Your task to perform on an android device: toggle notification dots Image 0: 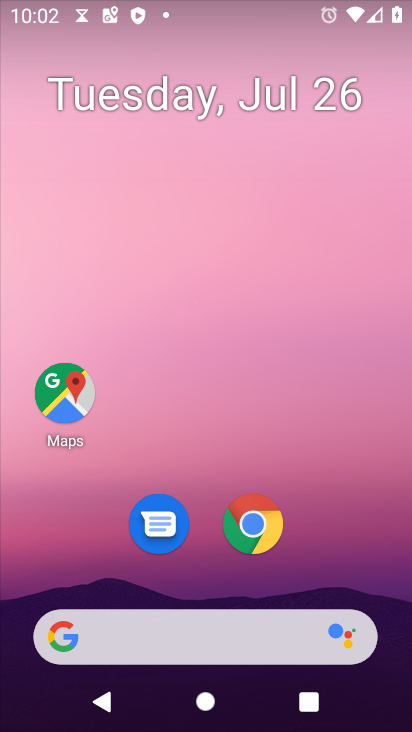
Step 0: drag from (243, 607) to (408, 139)
Your task to perform on an android device: toggle notification dots Image 1: 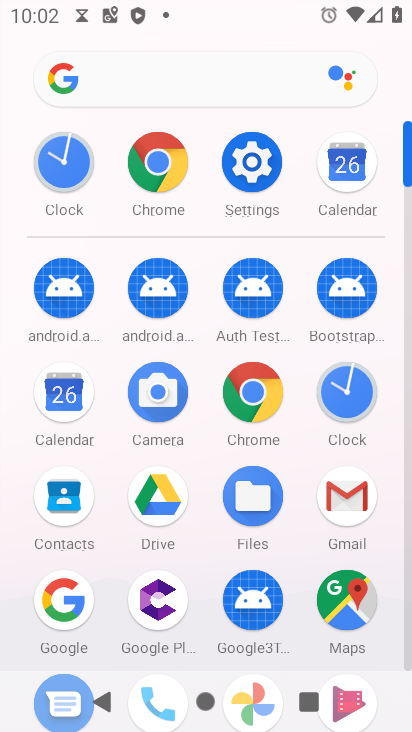
Step 1: click (252, 165)
Your task to perform on an android device: toggle notification dots Image 2: 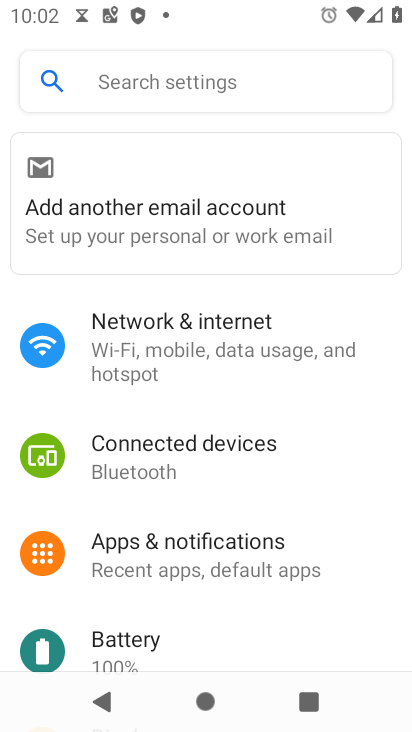
Step 2: click (217, 551)
Your task to perform on an android device: toggle notification dots Image 3: 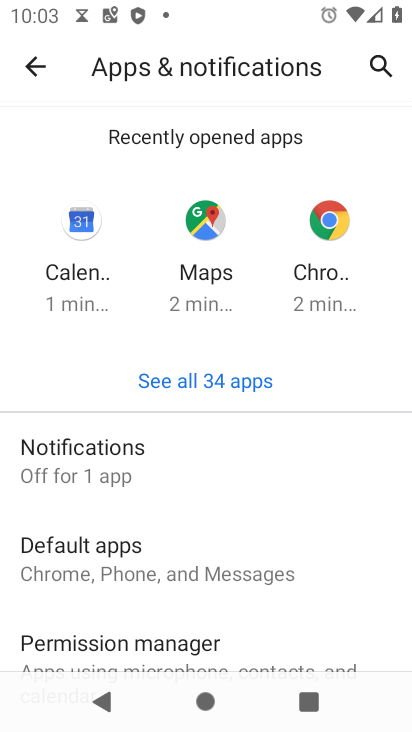
Step 3: click (119, 461)
Your task to perform on an android device: toggle notification dots Image 4: 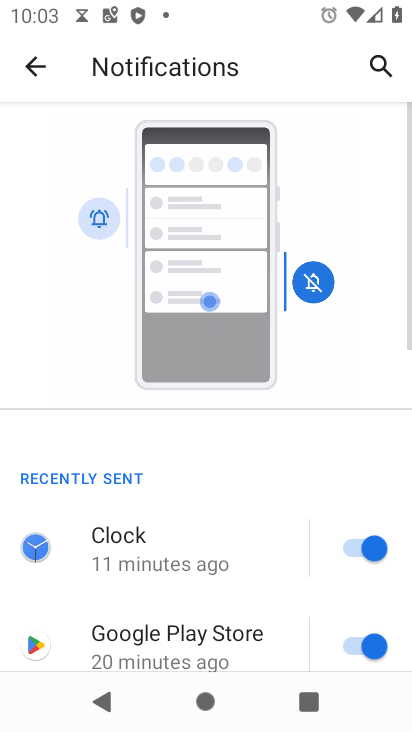
Step 4: drag from (231, 616) to (359, 148)
Your task to perform on an android device: toggle notification dots Image 5: 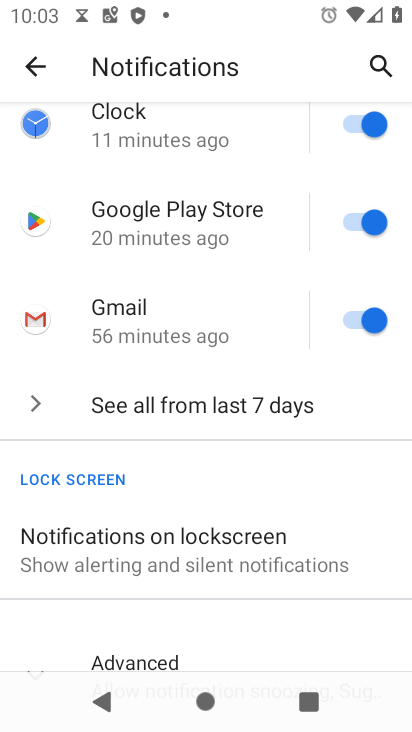
Step 5: drag from (246, 507) to (384, 133)
Your task to perform on an android device: toggle notification dots Image 6: 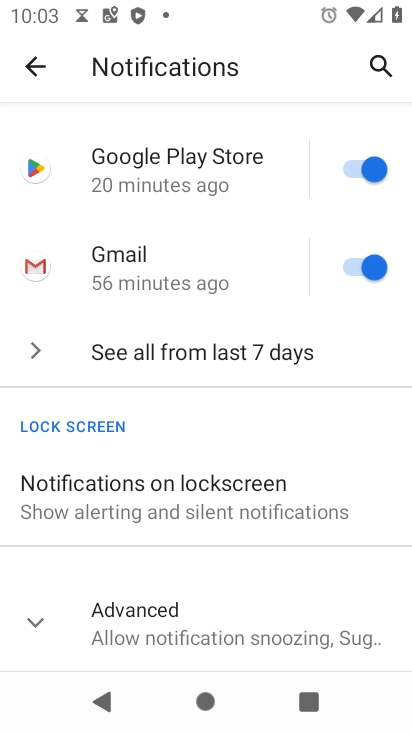
Step 6: click (199, 632)
Your task to perform on an android device: toggle notification dots Image 7: 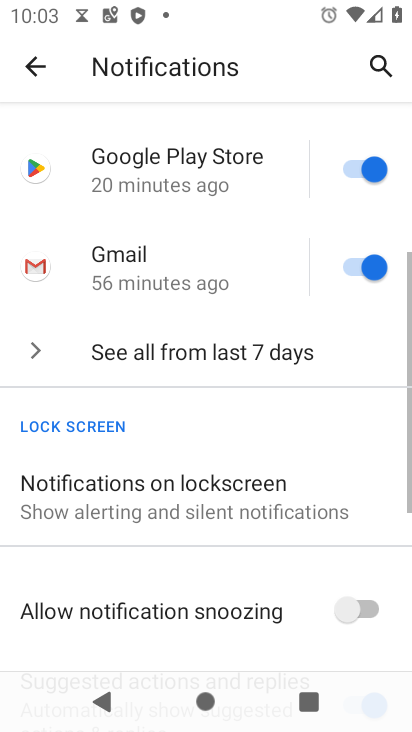
Step 7: drag from (237, 637) to (331, 57)
Your task to perform on an android device: toggle notification dots Image 8: 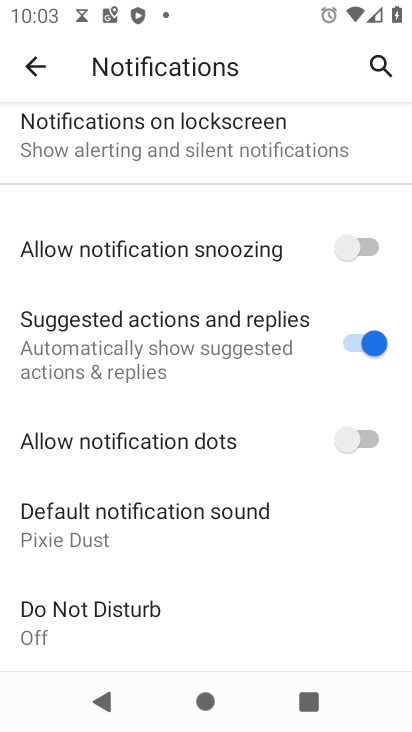
Step 8: click (373, 442)
Your task to perform on an android device: toggle notification dots Image 9: 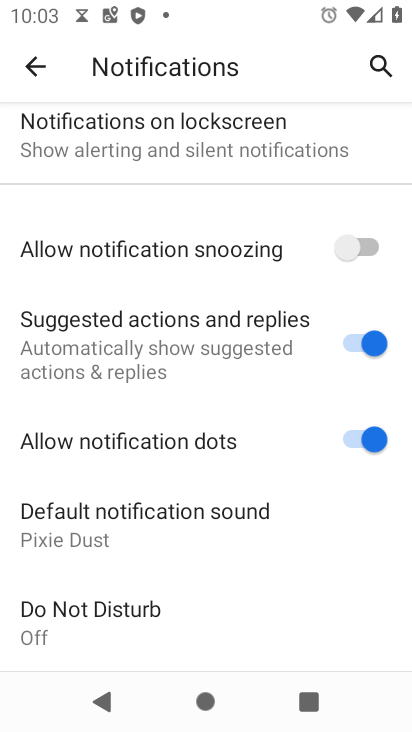
Step 9: task complete